Your task to perform on an android device: Go to location settings Image 0: 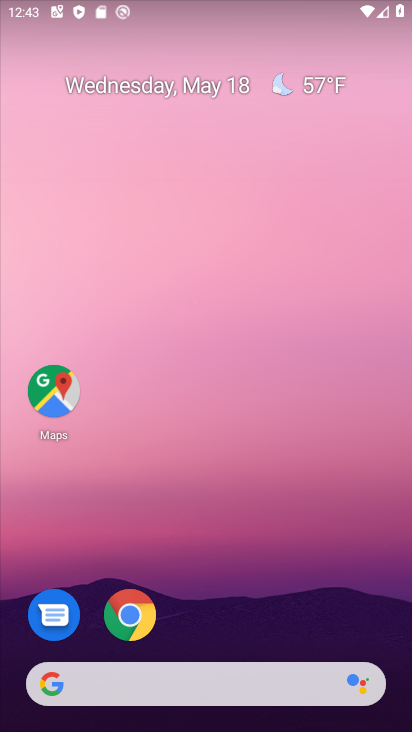
Step 0: drag from (384, 627) to (288, 73)
Your task to perform on an android device: Go to location settings Image 1: 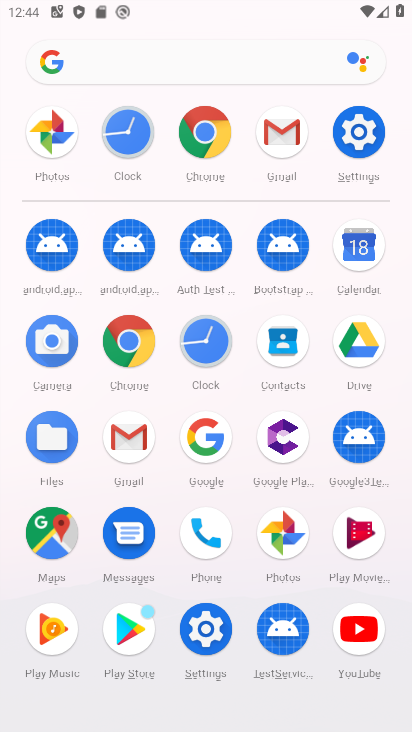
Step 1: click (209, 655)
Your task to perform on an android device: Go to location settings Image 2: 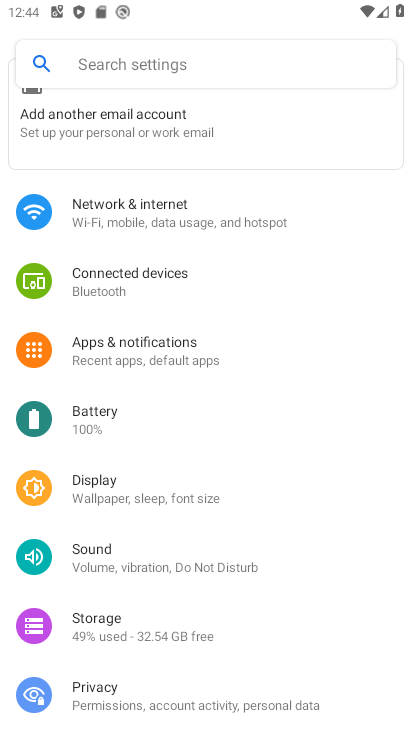
Step 2: drag from (161, 607) to (179, 222)
Your task to perform on an android device: Go to location settings Image 3: 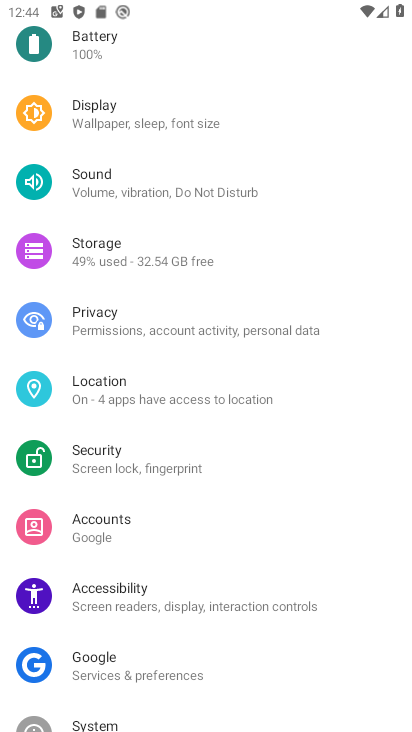
Step 3: click (154, 381)
Your task to perform on an android device: Go to location settings Image 4: 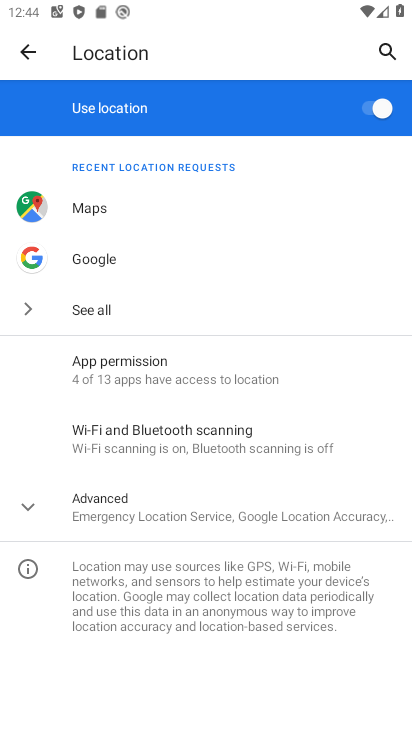
Step 4: task complete